Your task to perform on an android device: Open Google Chrome and click the shortcut for Amazon.com Image 0: 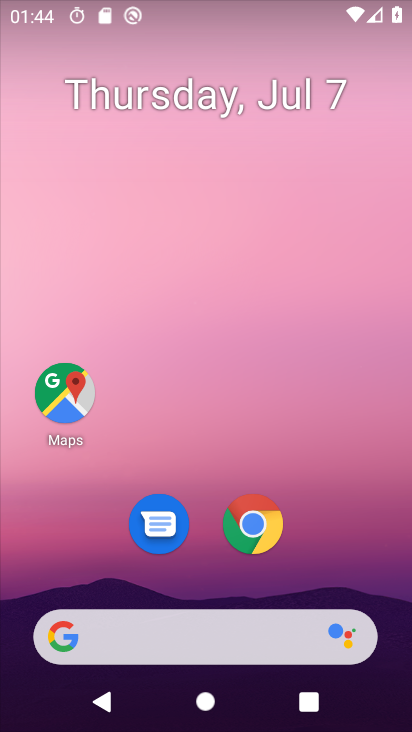
Step 0: click (264, 519)
Your task to perform on an android device: Open Google Chrome and click the shortcut for Amazon.com Image 1: 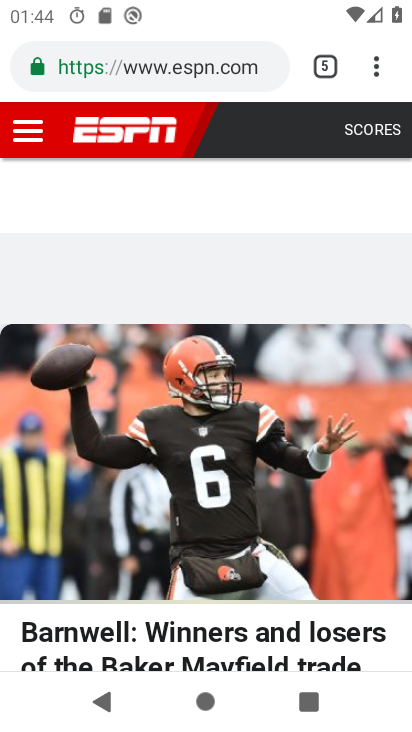
Step 1: click (370, 63)
Your task to perform on an android device: Open Google Chrome and click the shortcut for Amazon.com Image 2: 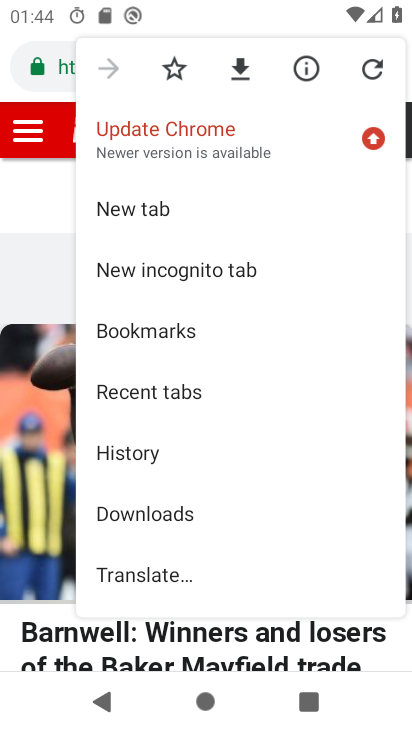
Step 2: click (220, 214)
Your task to perform on an android device: Open Google Chrome and click the shortcut for Amazon.com Image 3: 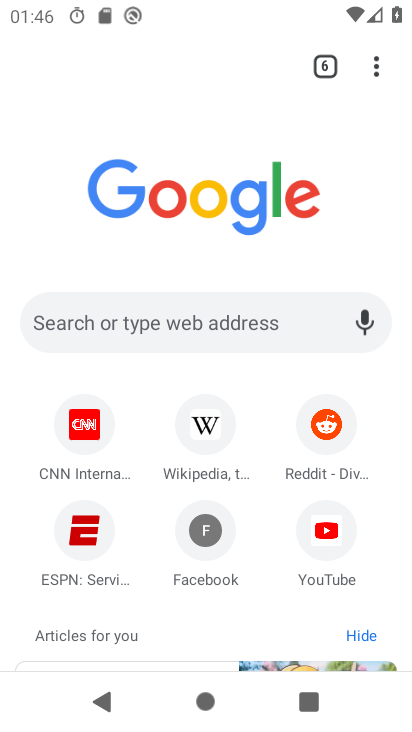
Step 3: task complete